Your task to perform on an android device: toggle wifi Image 0: 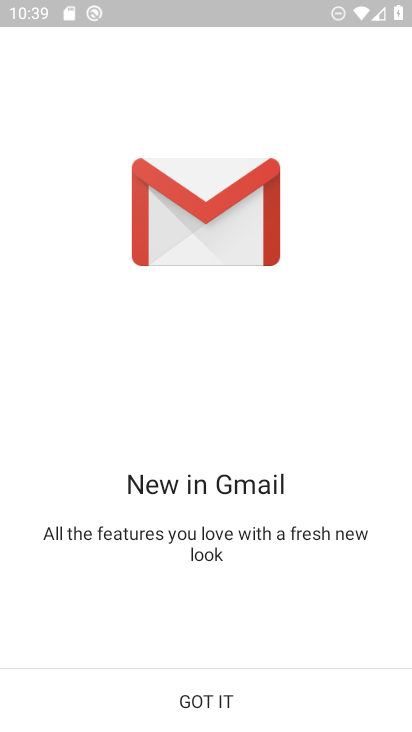
Step 0: click (231, 700)
Your task to perform on an android device: toggle wifi Image 1: 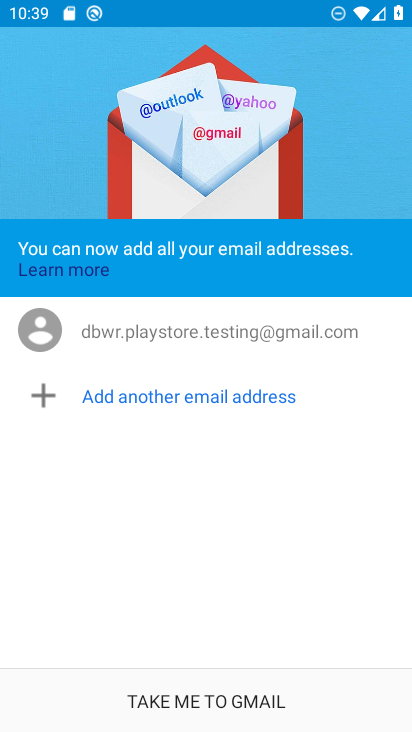
Step 1: click (231, 700)
Your task to perform on an android device: toggle wifi Image 2: 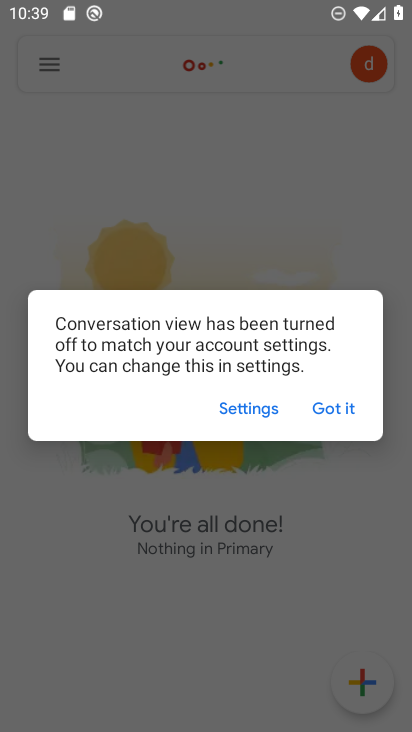
Step 2: press home button
Your task to perform on an android device: toggle wifi Image 3: 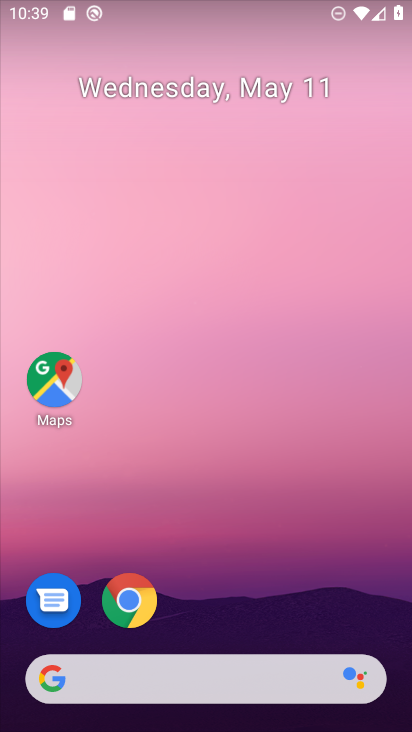
Step 3: drag from (250, 4) to (235, 409)
Your task to perform on an android device: toggle wifi Image 4: 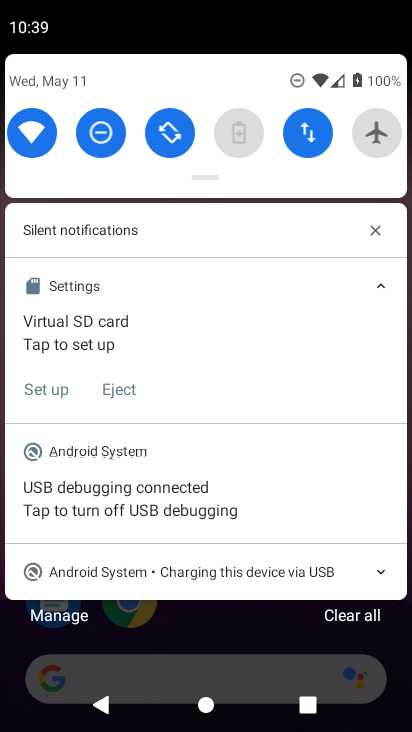
Step 4: click (35, 133)
Your task to perform on an android device: toggle wifi Image 5: 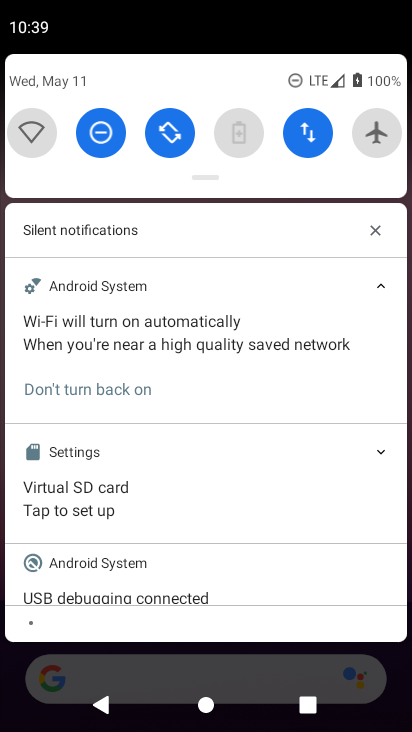
Step 5: task complete